Your task to perform on an android device: Set the phone to "Do not disturb". Image 0: 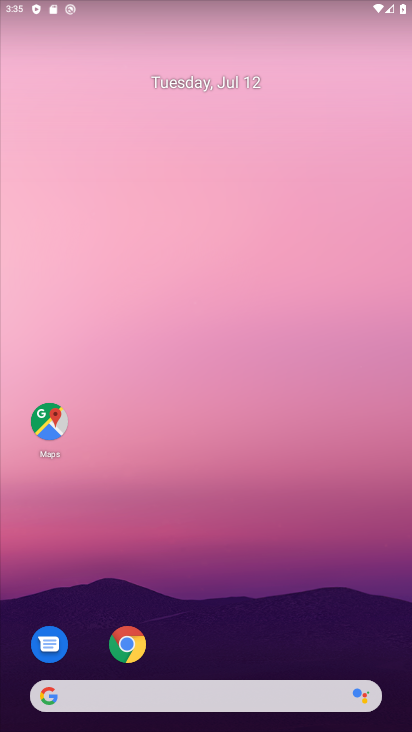
Step 0: drag from (305, 609) to (283, 85)
Your task to perform on an android device: Set the phone to "Do not disturb". Image 1: 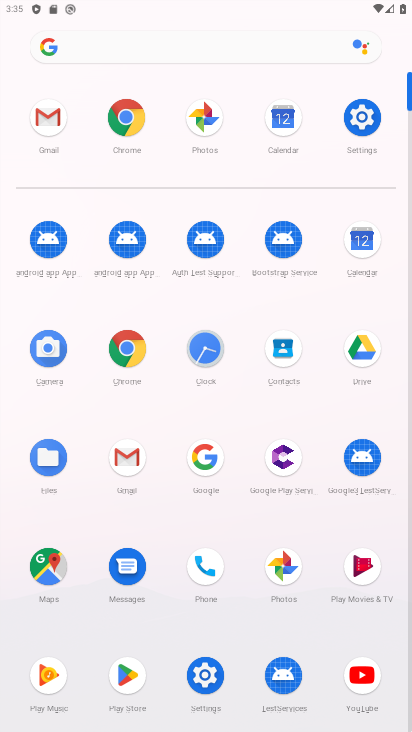
Step 1: click (371, 109)
Your task to perform on an android device: Set the phone to "Do not disturb". Image 2: 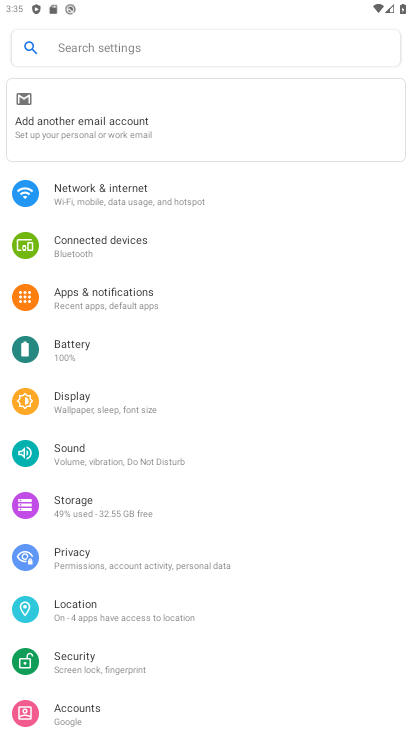
Step 2: drag from (158, 2) to (179, 503)
Your task to perform on an android device: Set the phone to "Do not disturb". Image 3: 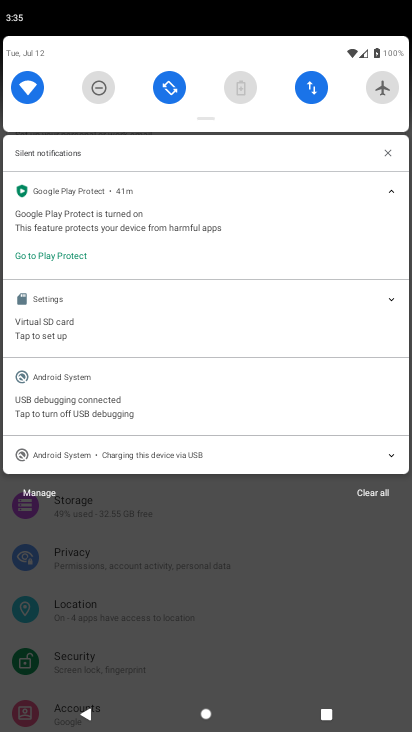
Step 3: click (102, 81)
Your task to perform on an android device: Set the phone to "Do not disturb". Image 4: 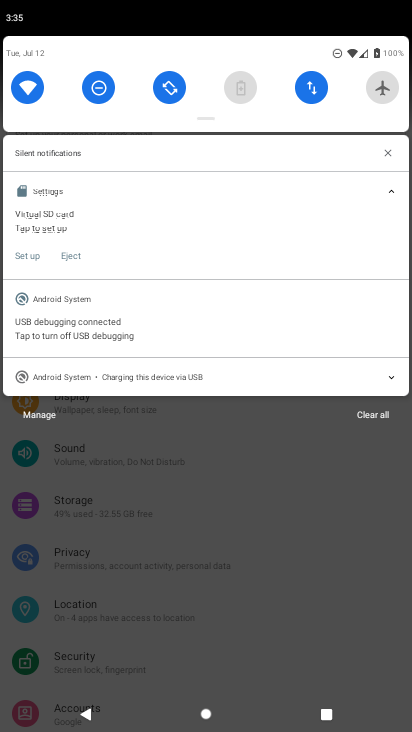
Step 4: task complete